Your task to perform on an android device: all mails in gmail Image 0: 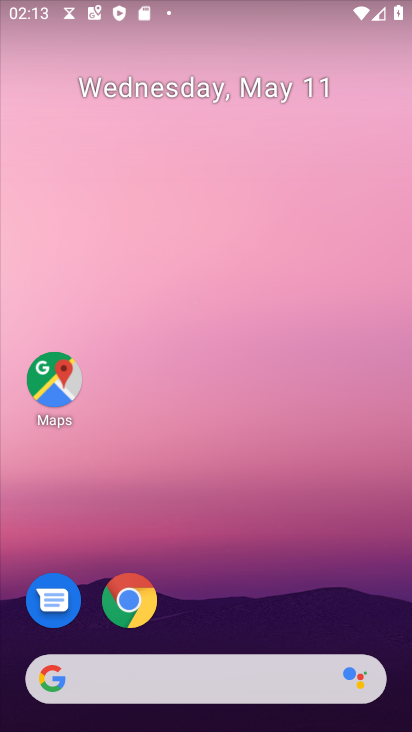
Step 0: drag from (230, 506) to (253, 261)
Your task to perform on an android device: all mails in gmail Image 1: 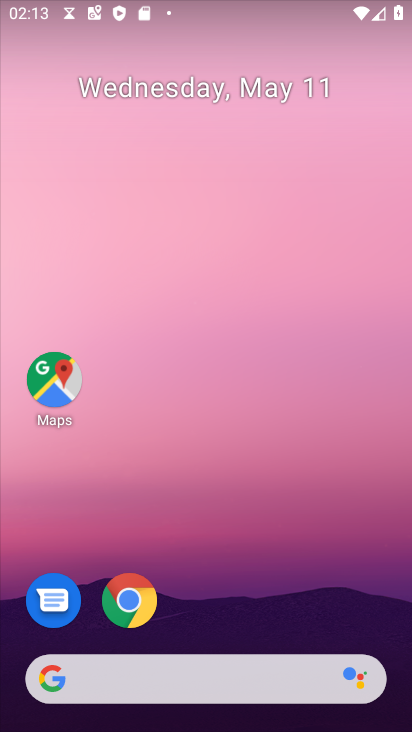
Step 1: drag from (184, 599) to (228, 215)
Your task to perform on an android device: all mails in gmail Image 2: 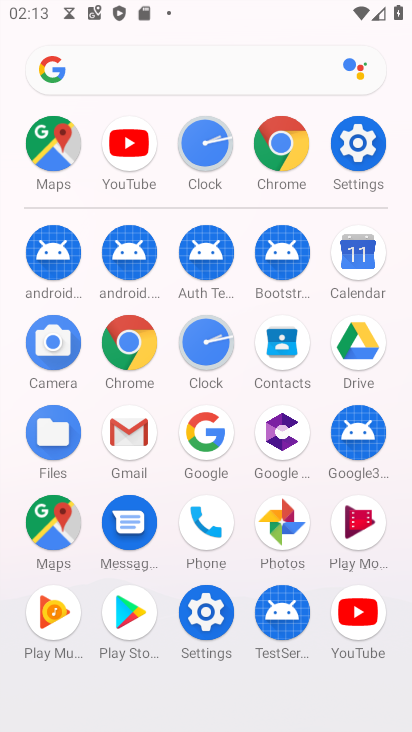
Step 2: click (114, 424)
Your task to perform on an android device: all mails in gmail Image 3: 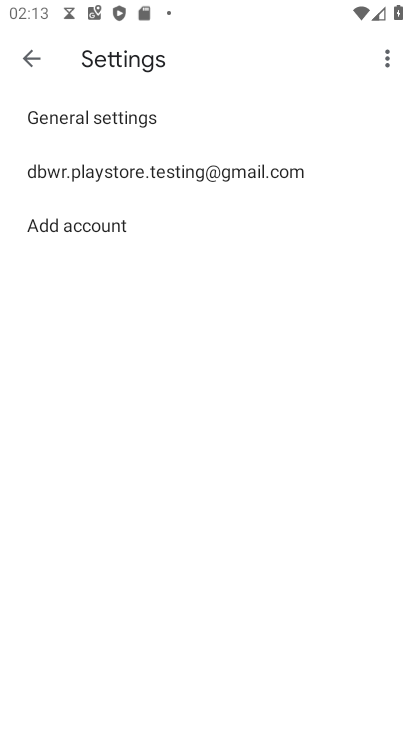
Step 3: click (23, 57)
Your task to perform on an android device: all mails in gmail Image 4: 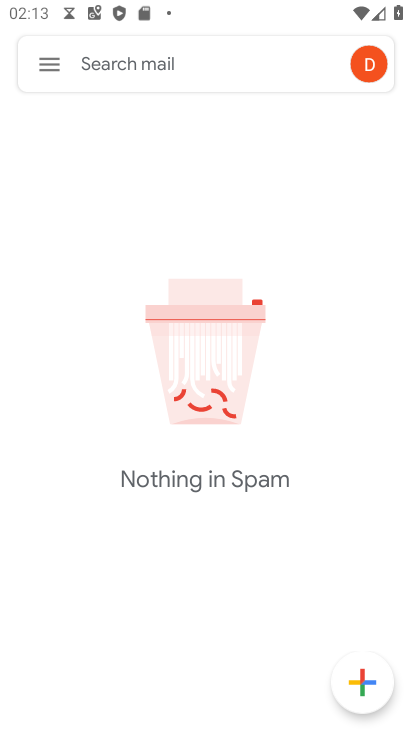
Step 4: click (42, 68)
Your task to perform on an android device: all mails in gmail Image 5: 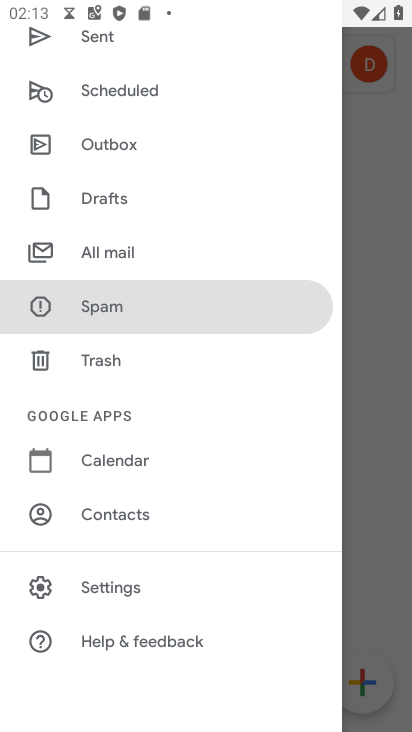
Step 5: click (108, 251)
Your task to perform on an android device: all mails in gmail Image 6: 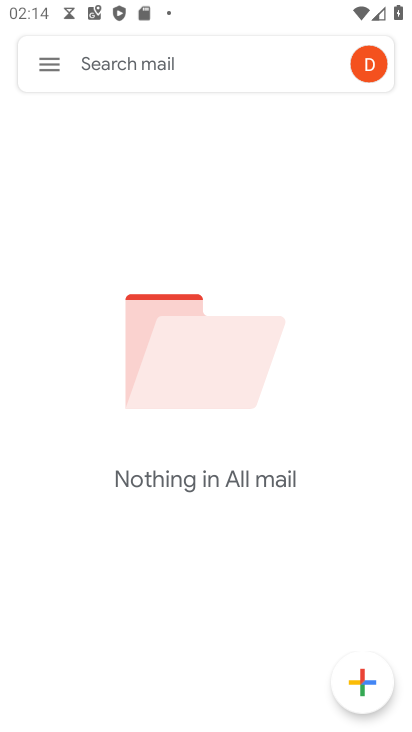
Step 6: task complete